Your task to perform on an android device: Clear all items from cart on bestbuy. Search for "logitech g pro" on bestbuy, select the first entry, and add it to the cart. Image 0: 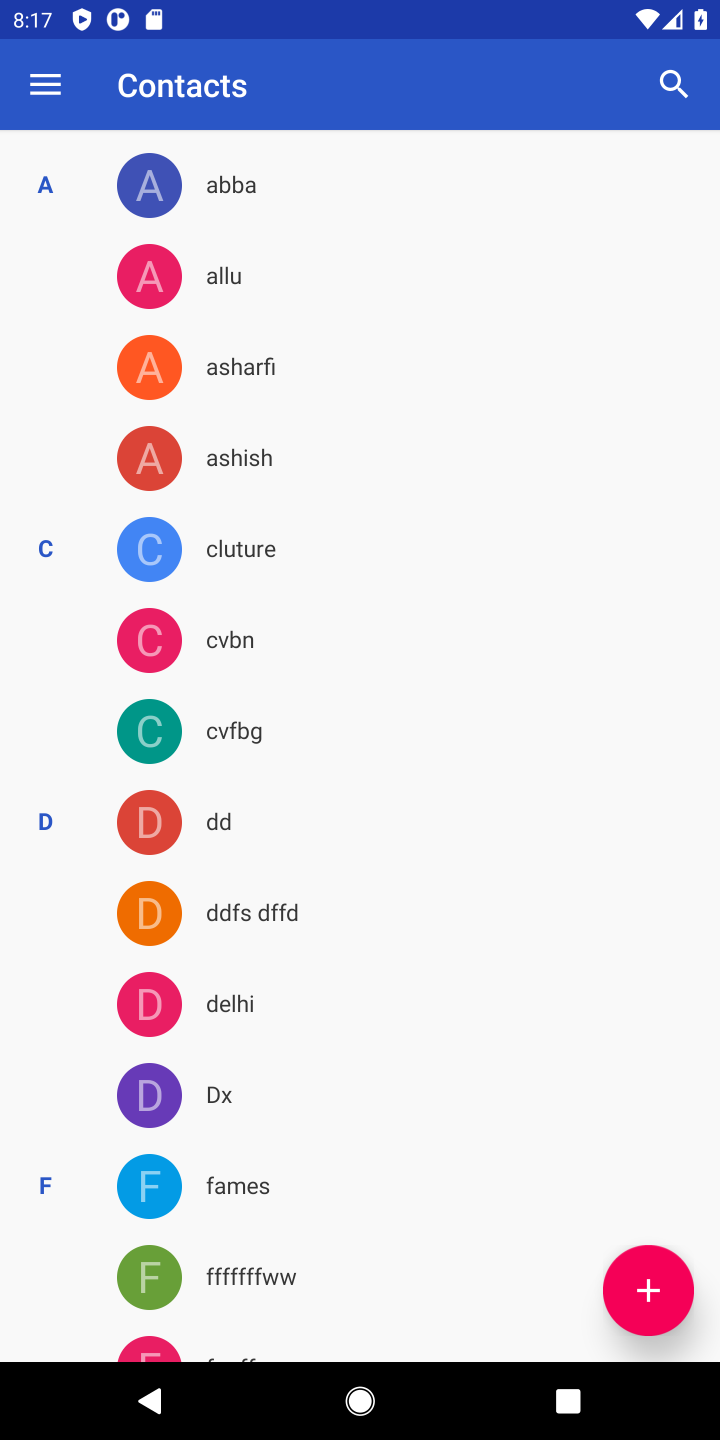
Step 0: press home button
Your task to perform on an android device: Clear all items from cart on bestbuy. Search for "logitech g pro" on bestbuy, select the first entry, and add it to the cart. Image 1: 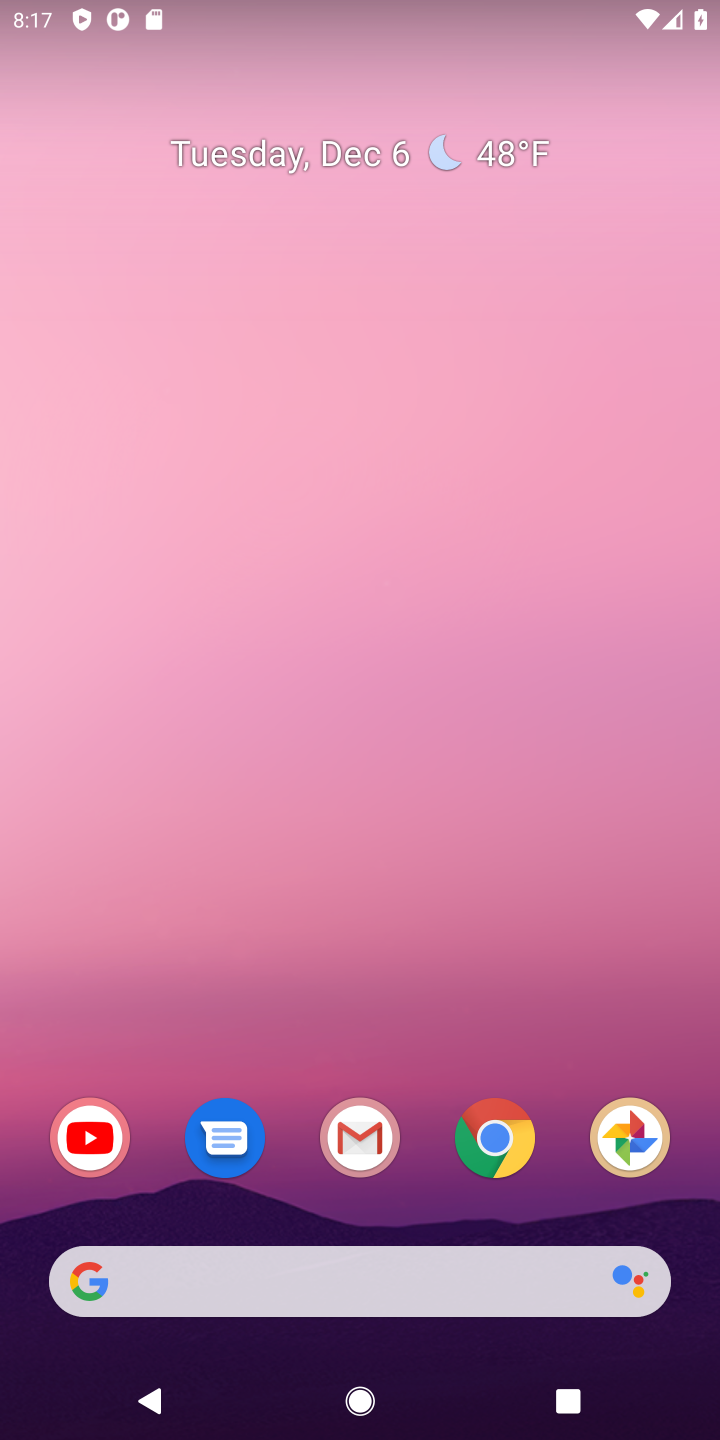
Step 1: click (496, 1154)
Your task to perform on an android device: Clear all items from cart on bestbuy. Search for "logitech g pro" on bestbuy, select the first entry, and add it to the cart. Image 2: 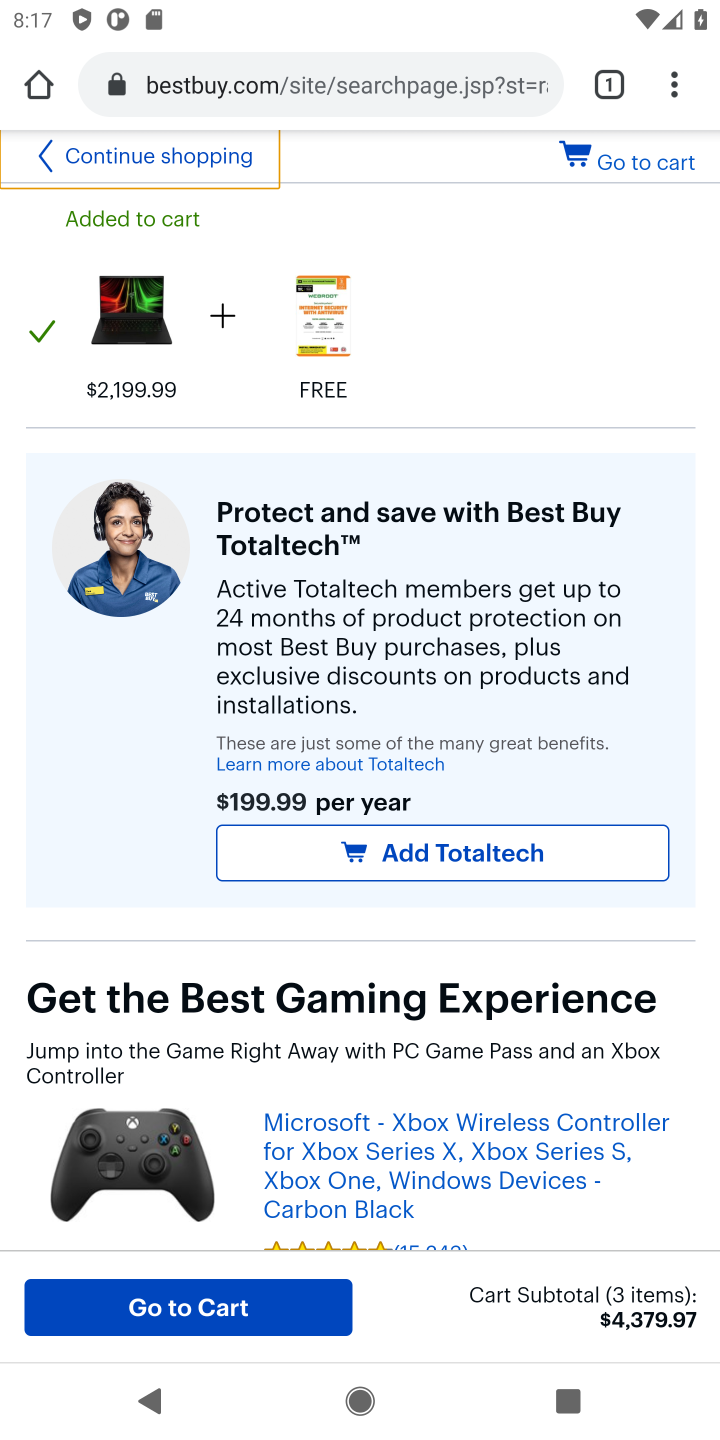
Step 2: drag from (568, 304) to (590, 441)
Your task to perform on an android device: Clear all items from cart on bestbuy. Search for "logitech g pro" on bestbuy, select the first entry, and add it to the cart. Image 3: 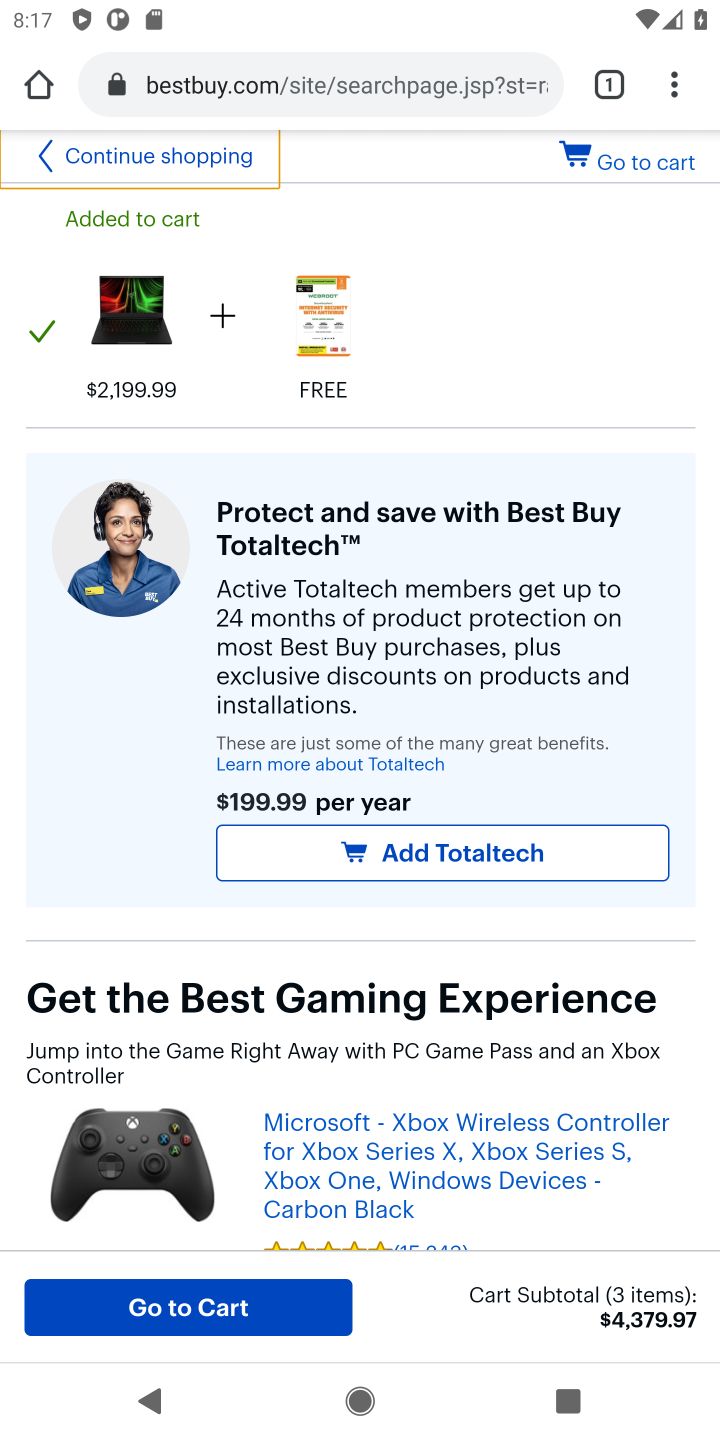
Step 3: click (650, 161)
Your task to perform on an android device: Clear all items from cart on bestbuy. Search for "logitech g pro" on bestbuy, select the first entry, and add it to the cart. Image 4: 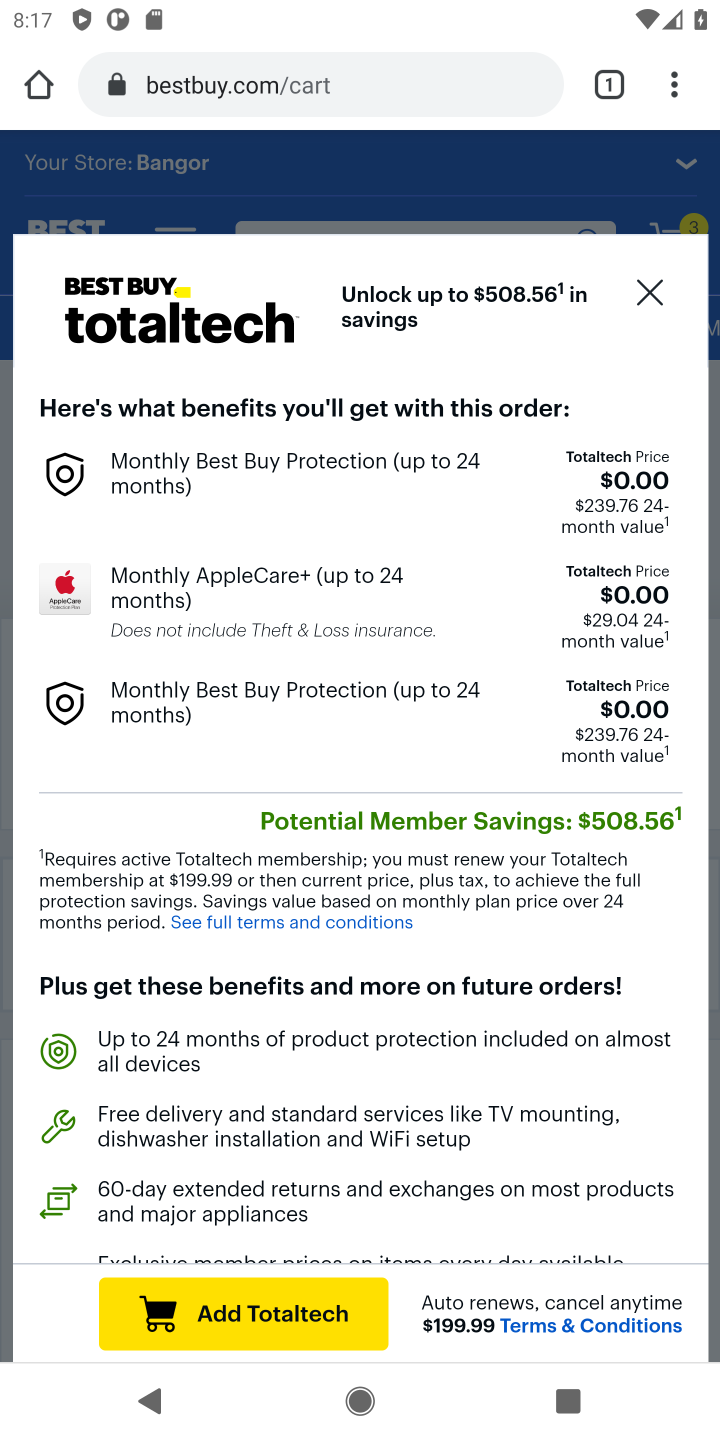
Step 4: click (659, 298)
Your task to perform on an android device: Clear all items from cart on bestbuy. Search for "logitech g pro" on bestbuy, select the first entry, and add it to the cart. Image 5: 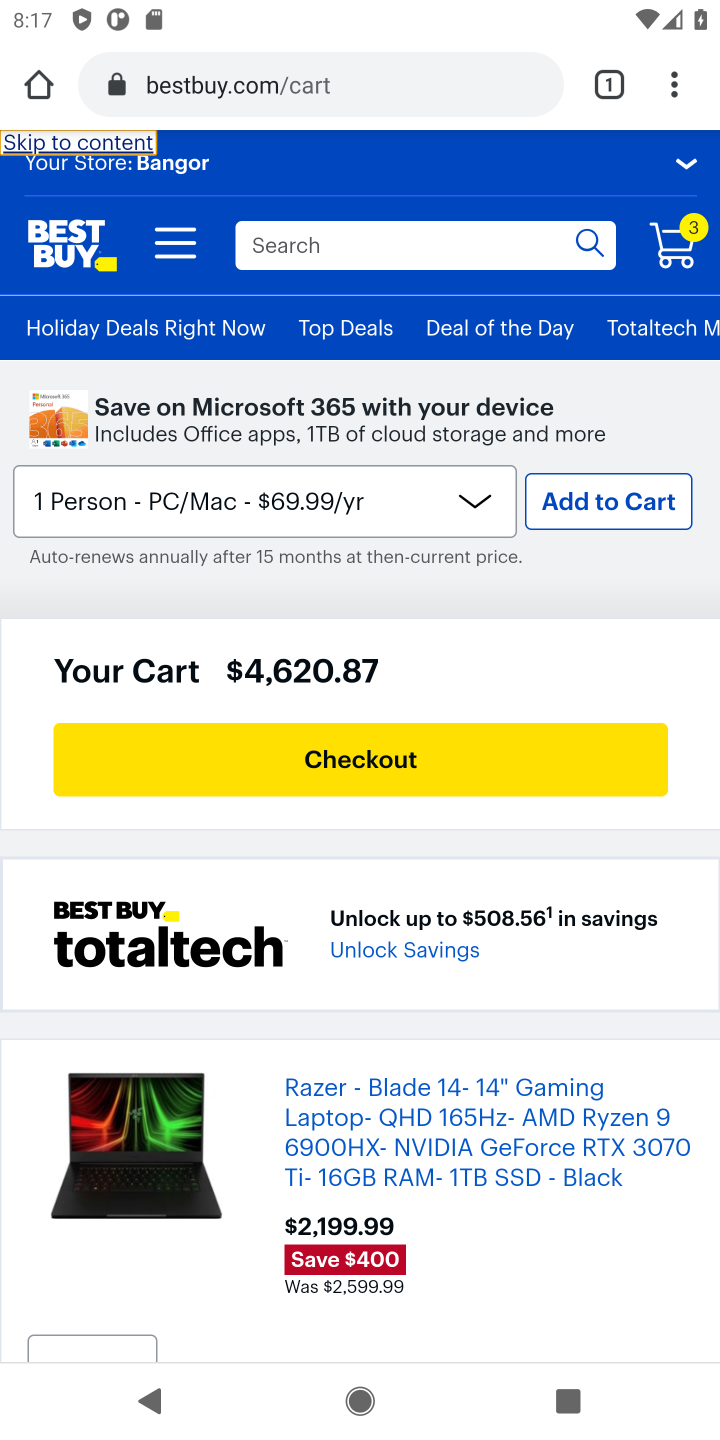
Step 5: drag from (596, 904) to (641, 171)
Your task to perform on an android device: Clear all items from cart on bestbuy. Search for "logitech g pro" on bestbuy, select the first entry, and add it to the cart. Image 6: 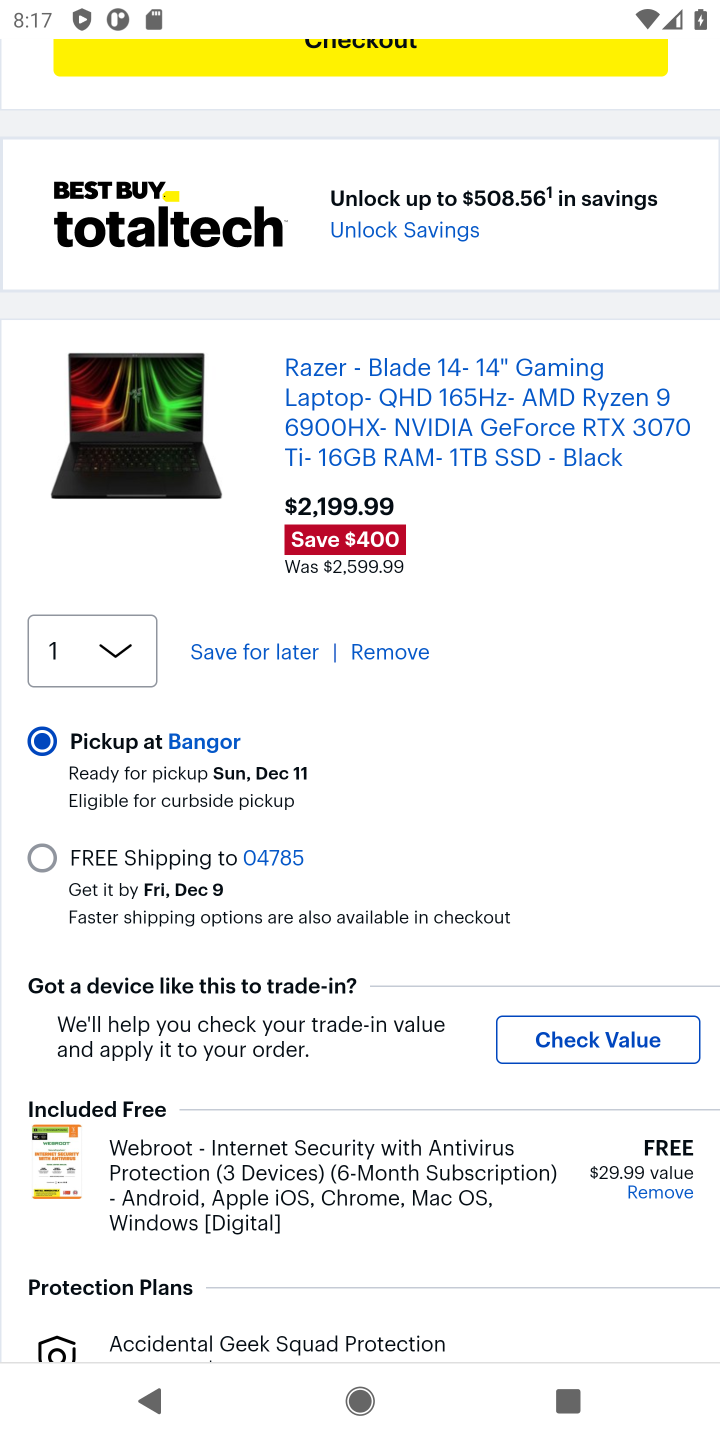
Step 6: click (384, 661)
Your task to perform on an android device: Clear all items from cart on bestbuy. Search for "logitech g pro" on bestbuy, select the first entry, and add it to the cart. Image 7: 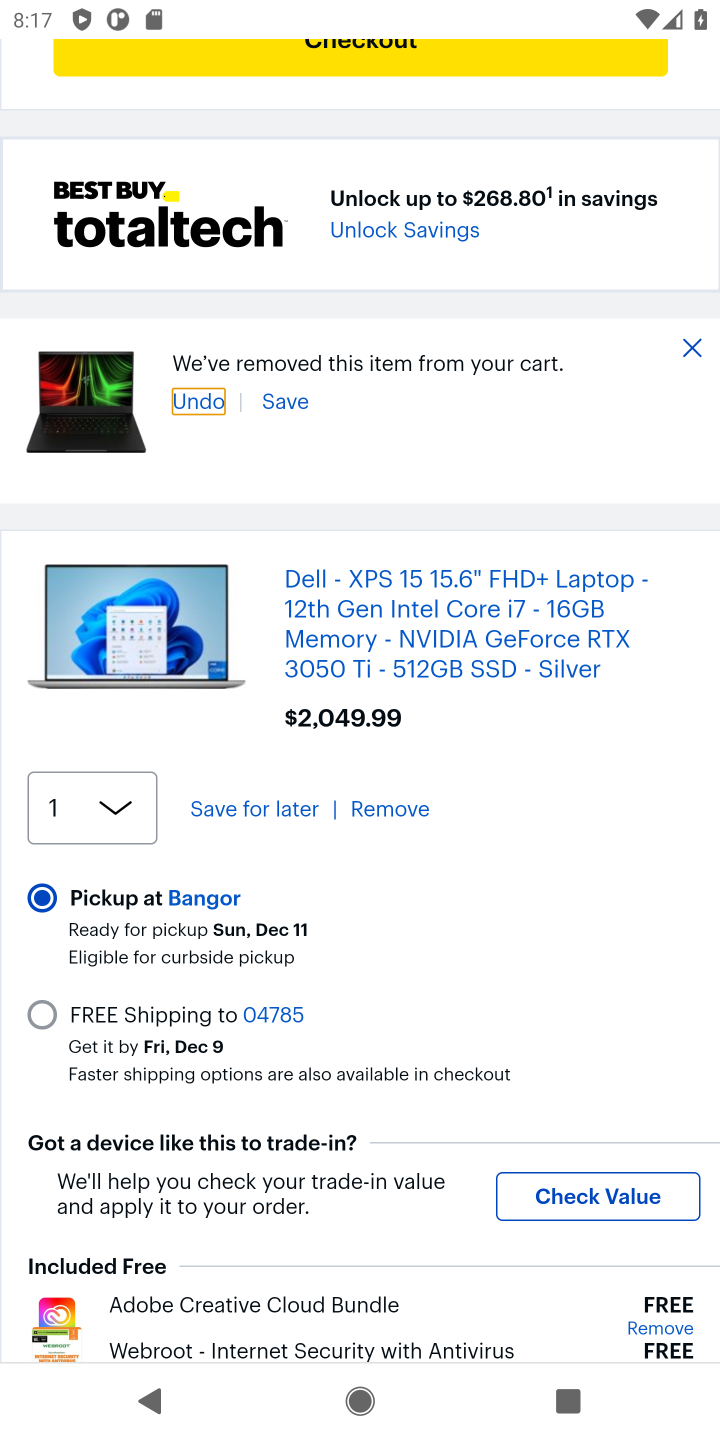
Step 7: click (401, 816)
Your task to perform on an android device: Clear all items from cart on bestbuy. Search for "logitech g pro" on bestbuy, select the first entry, and add it to the cart. Image 8: 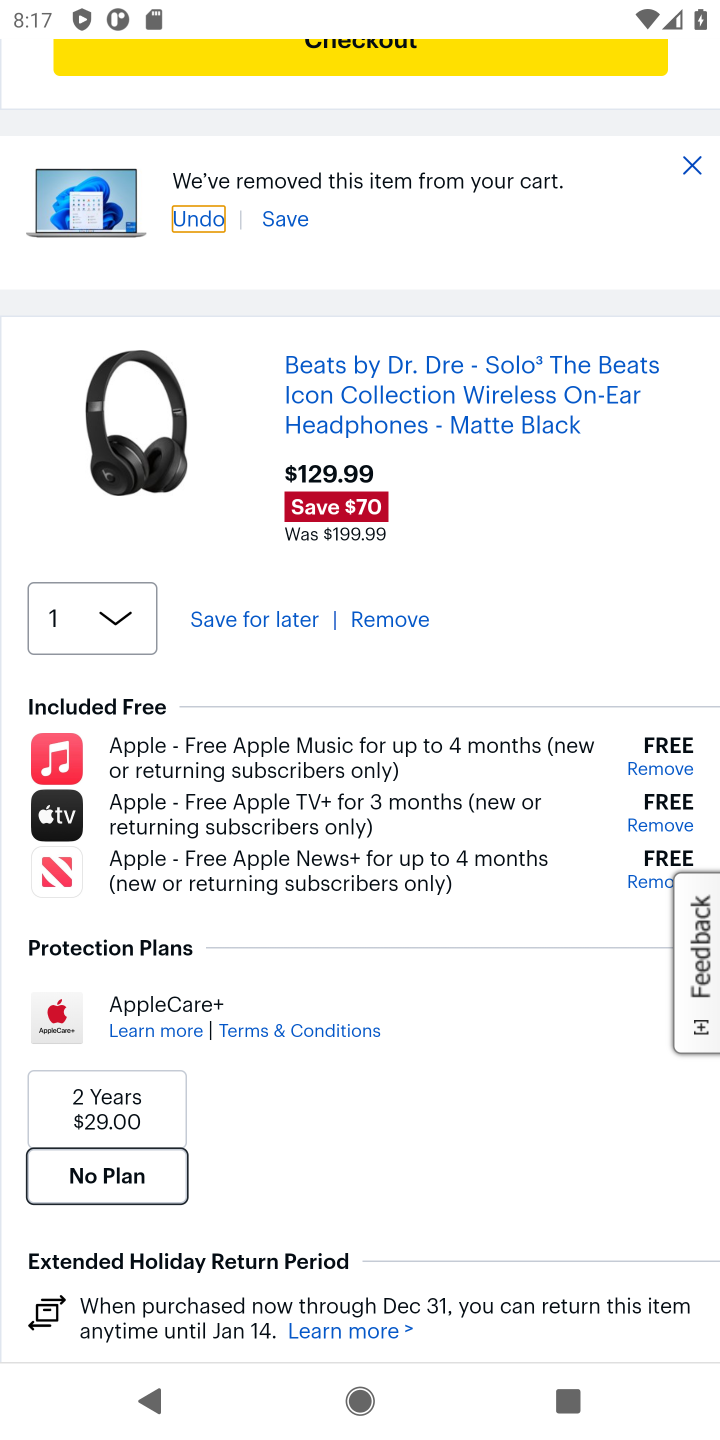
Step 8: click (371, 629)
Your task to perform on an android device: Clear all items from cart on bestbuy. Search for "logitech g pro" on bestbuy, select the first entry, and add it to the cart. Image 9: 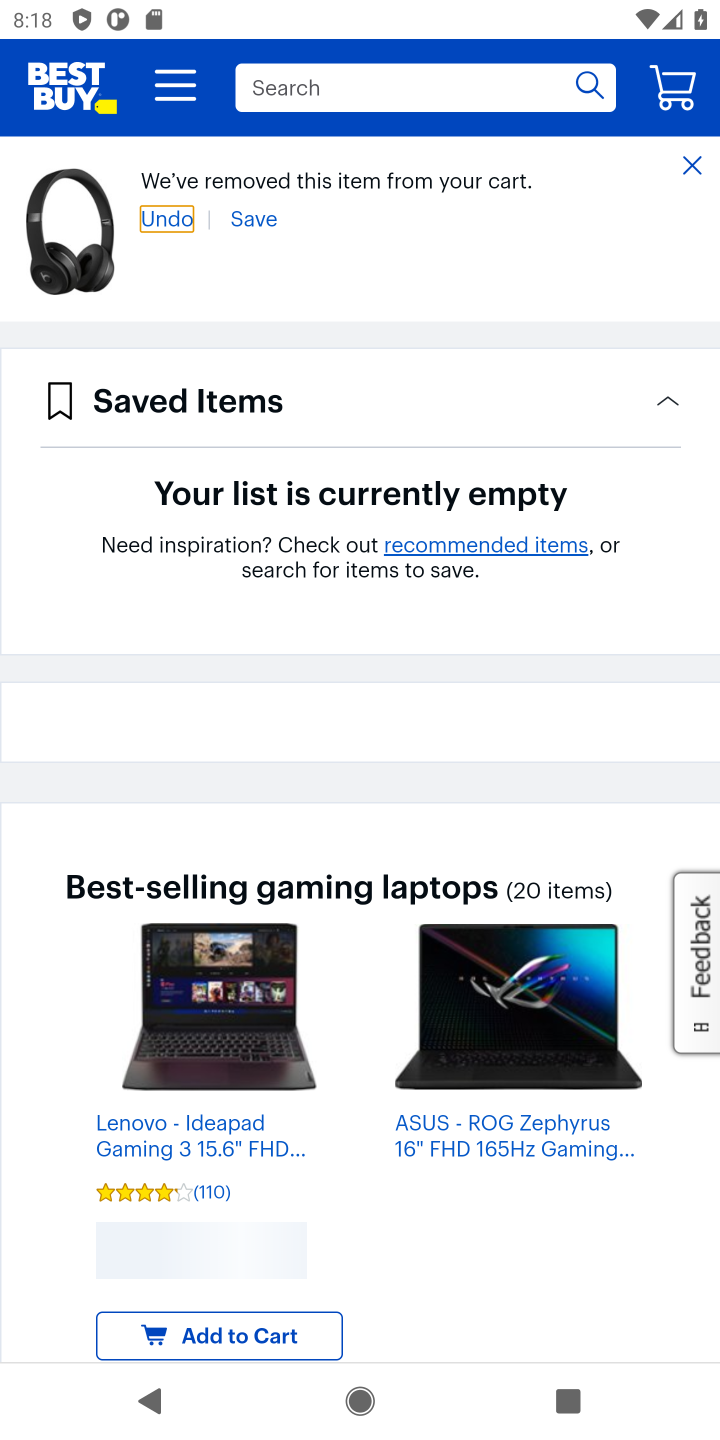
Step 9: click (350, 81)
Your task to perform on an android device: Clear all items from cart on bestbuy. Search for "logitech g pro" on bestbuy, select the first entry, and add it to the cart. Image 10: 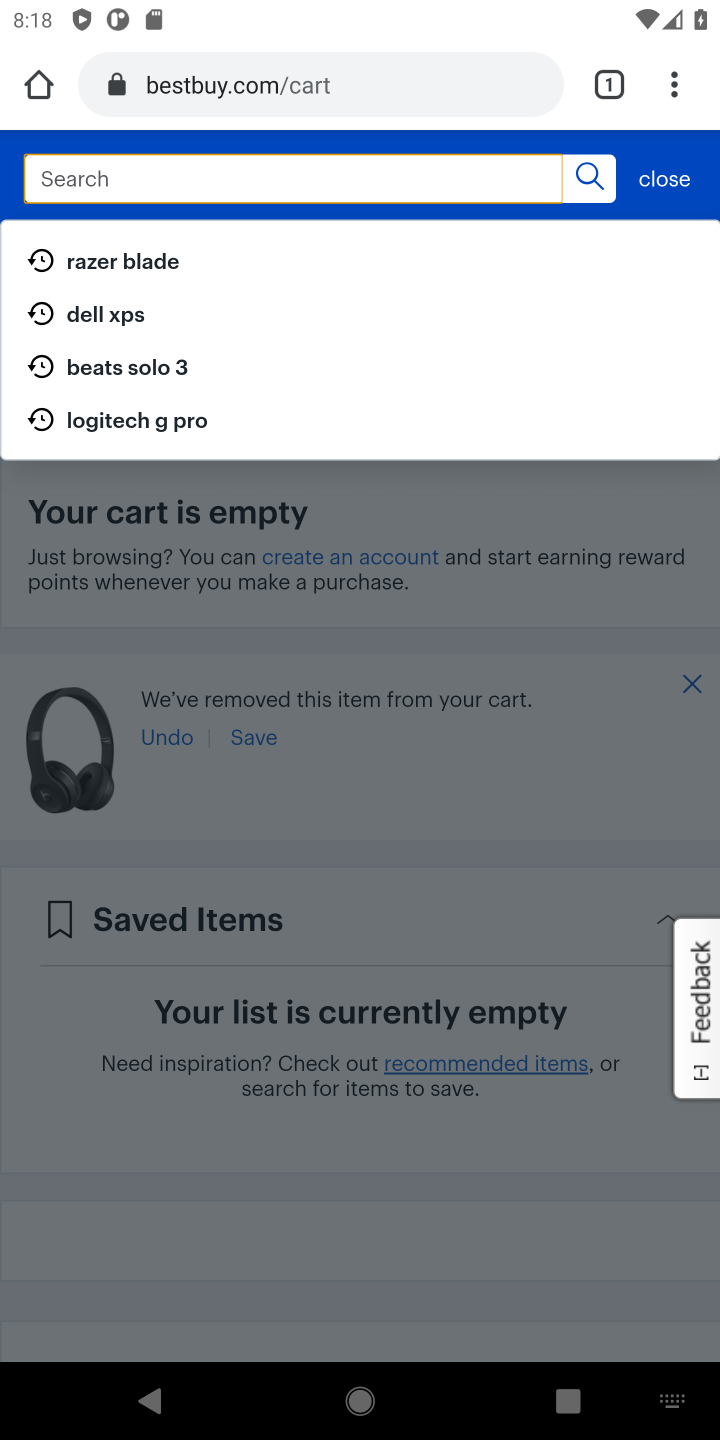
Step 10: type "logitech g pro"
Your task to perform on an android device: Clear all items from cart on bestbuy. Search for "logitech g pro" on bestbuy, select the first entry, and add it to the cart. Image 11: 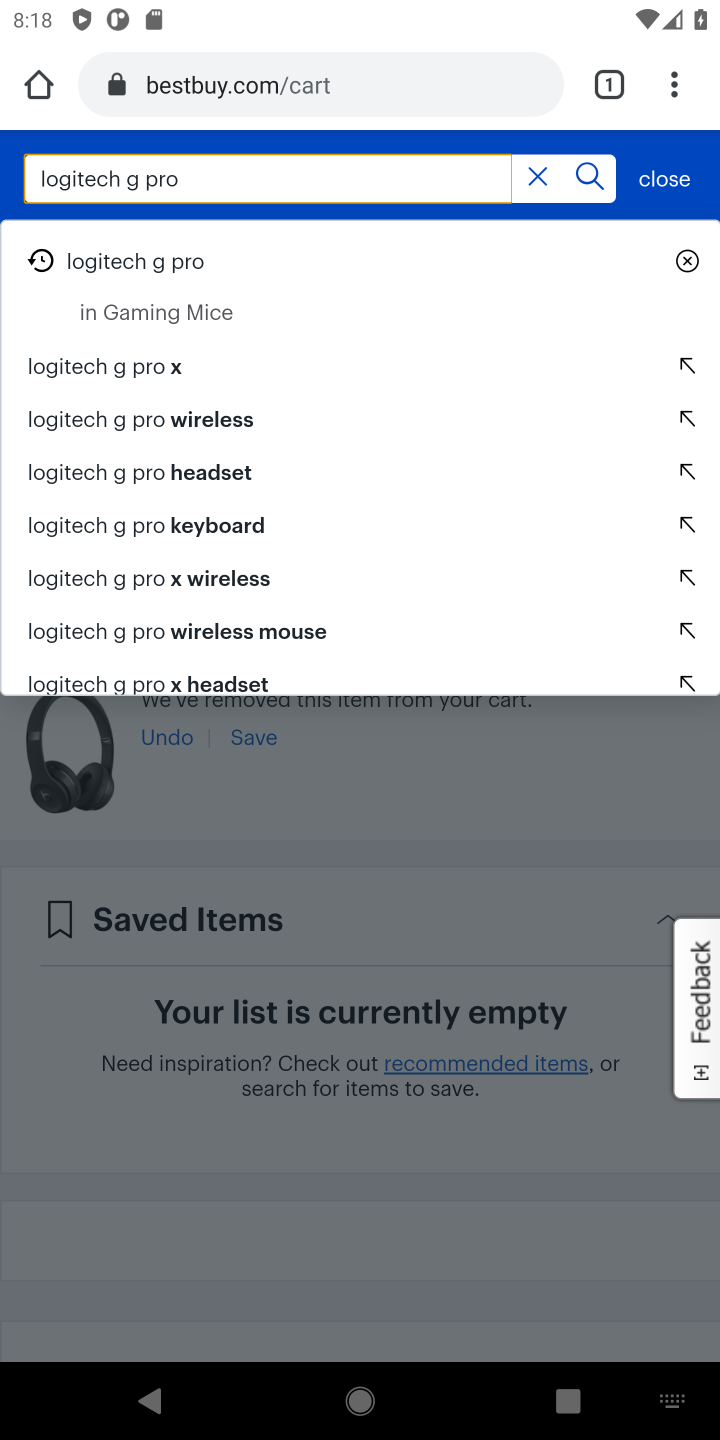
Step 11: click (178, 268)
Your task to perform on an android device: Clear all items from cart on bestbuy. Search for "logitech g pro" on bestbuy, select the first entry, and add it to the cart. Image 12: 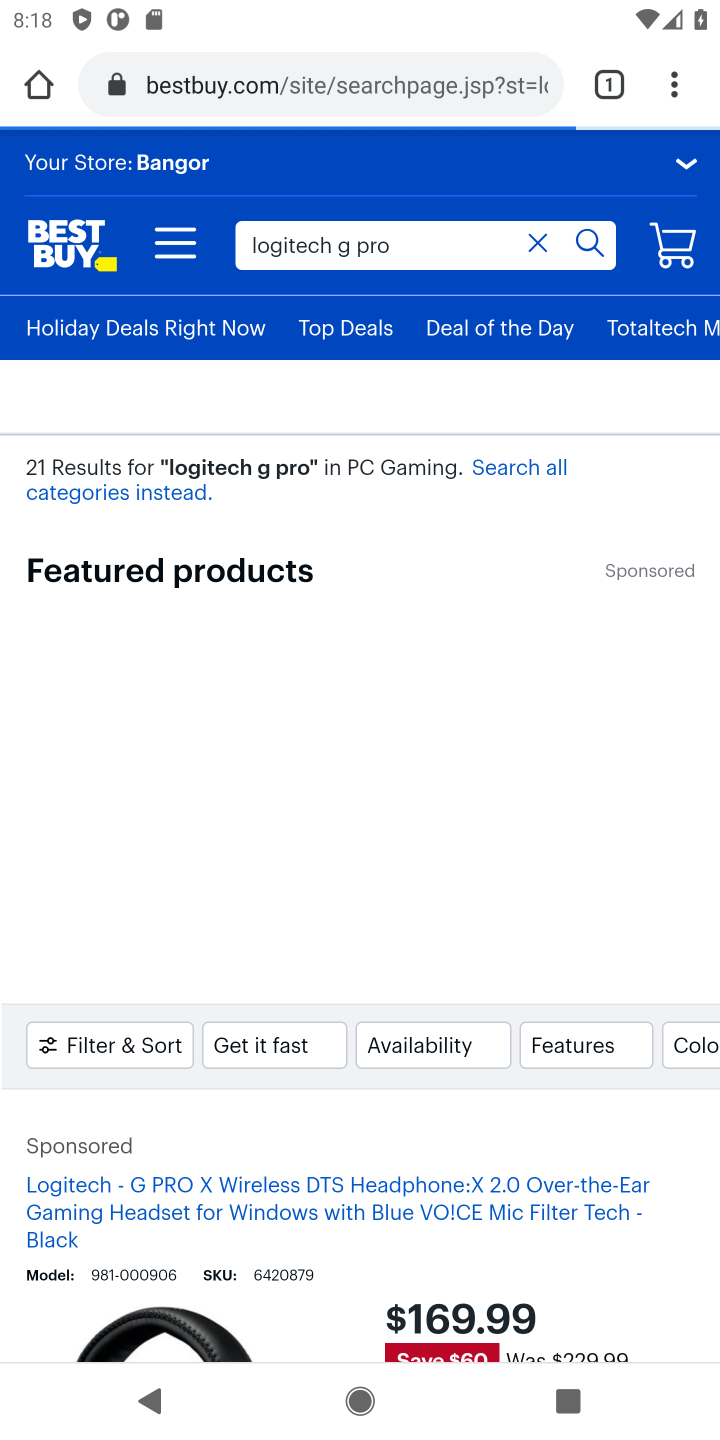
Step 12: drag from (333, 1062) to (340, 435)
Your task to perform on an android device: Clear all items from cart on bestbuy. Search for "logitech g pro" on bestbuy, select the first entry, and add it to the cart. Image 13: 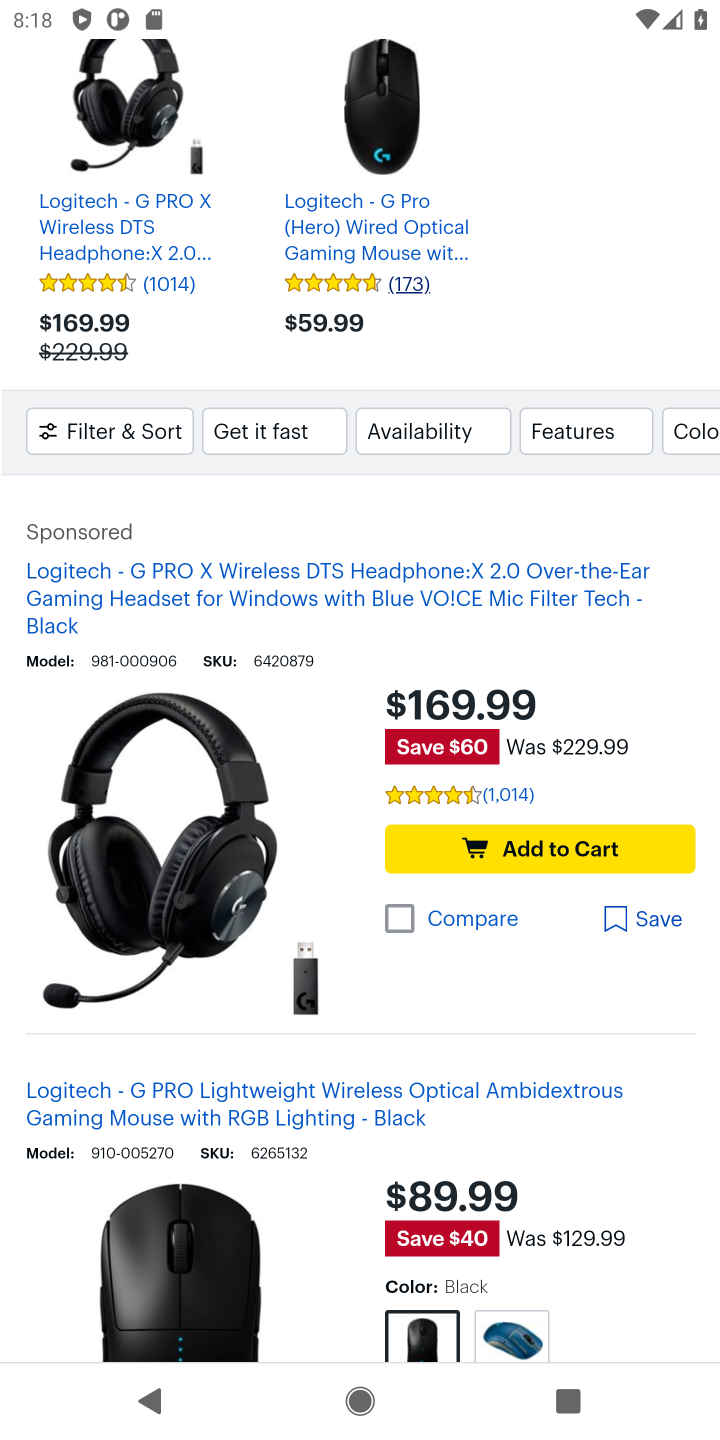
Step 13: click (485, 869)
Your task to perform on an android device: Clear all items from cart on bestbuy. Search for "logitech g pro" on bestbuy, select the first entry, and add it to the cart. Image 14: 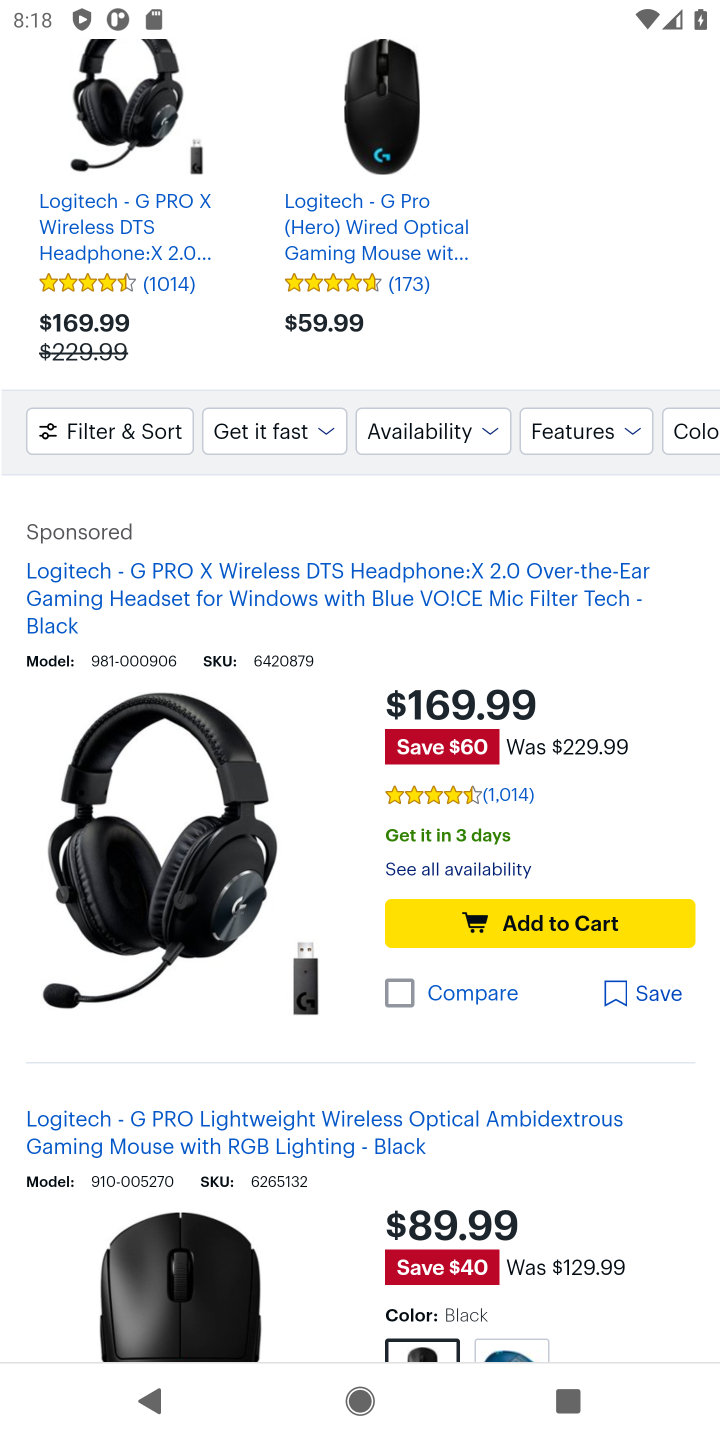
Step 14: click (491, 914)
Your task to perform on an android device: Clear all items from cart on bestbuy. Search for "logitech g pro" on bestbuy, select the first entry, and add it to the cart. Image 15: 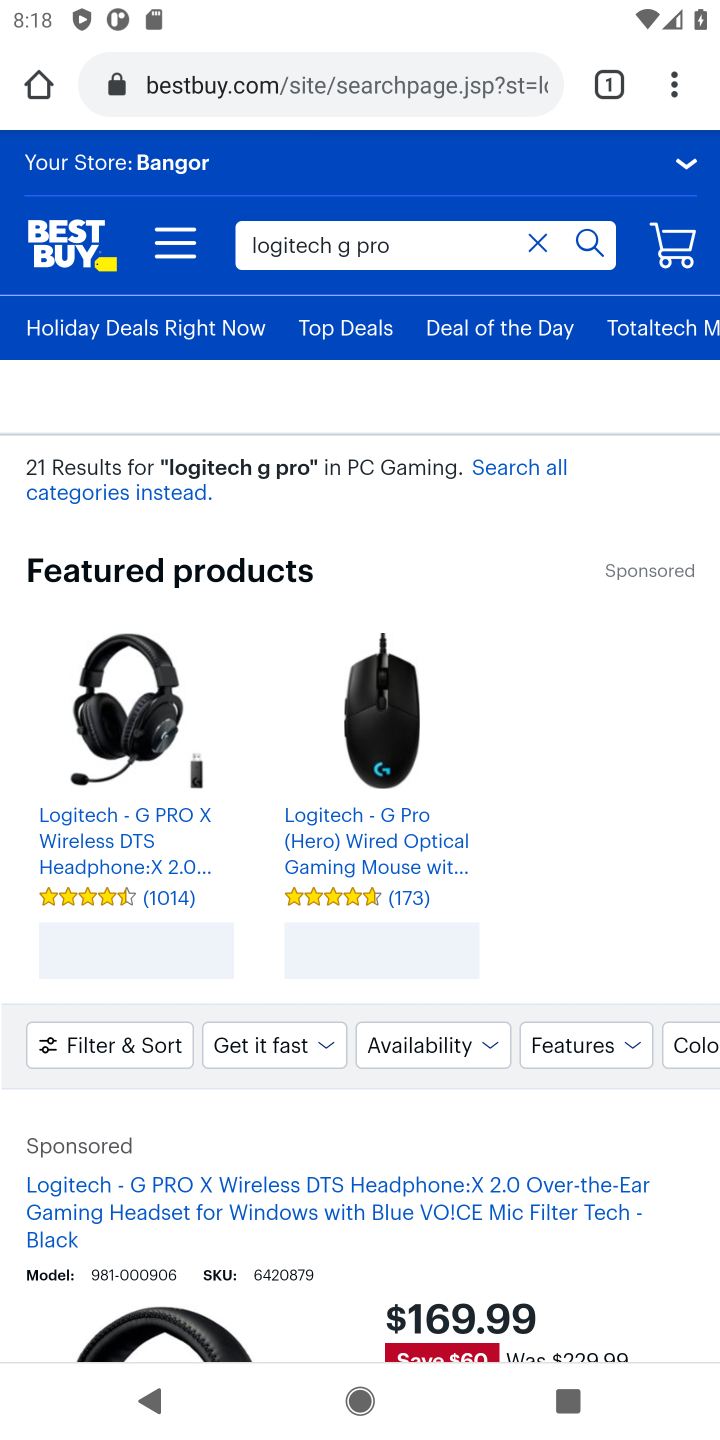
Step 15: drag from (496, 808) to (526, 260)
Your task to perform on an android device: Clear all items from cart on bestbuy. Search for "logitech g pro" on bestbuy, select the first entry, and add it to the cart. Image 16: 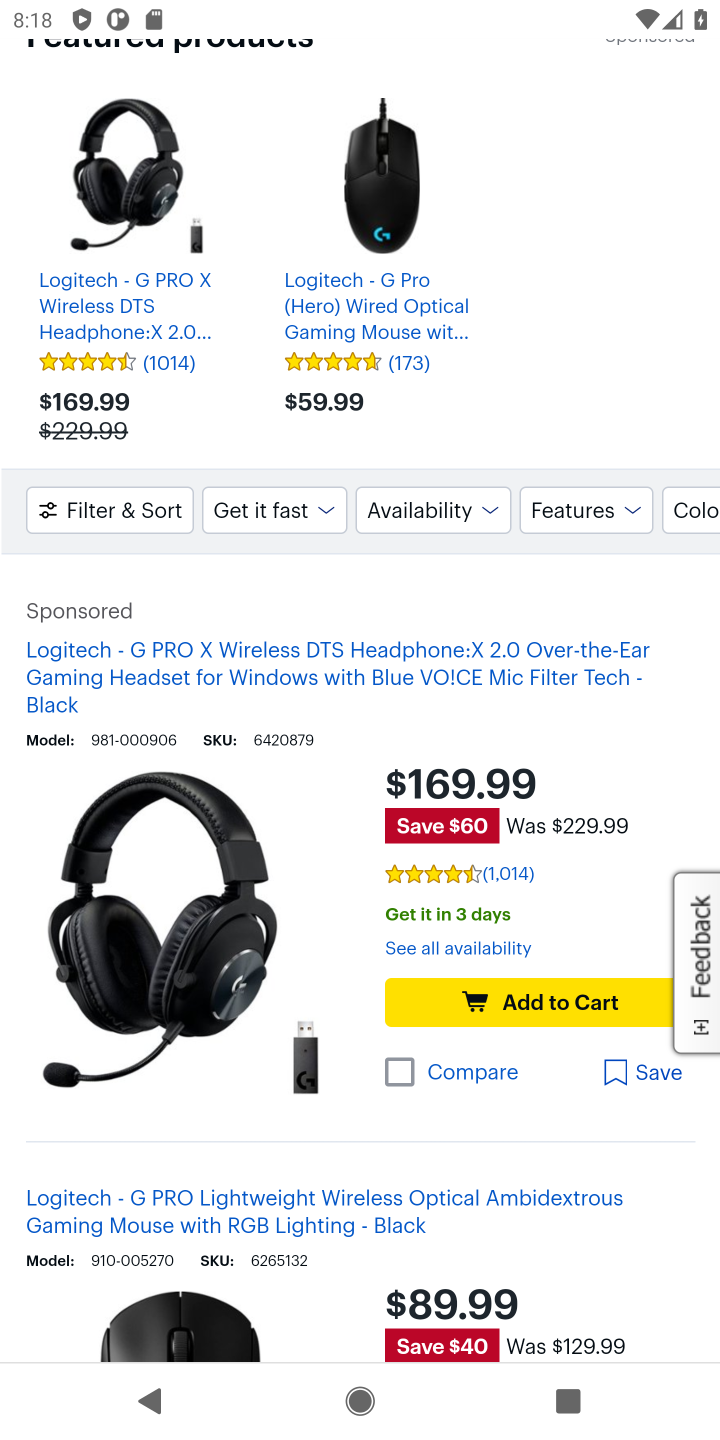
Step 16: click (504, 996)
Your task to perform on an android device: Clear all items from cart on bestbuy. Search for "logitech g pro" on bestbuy, select the first entry, and add it to the cart. Image 17: 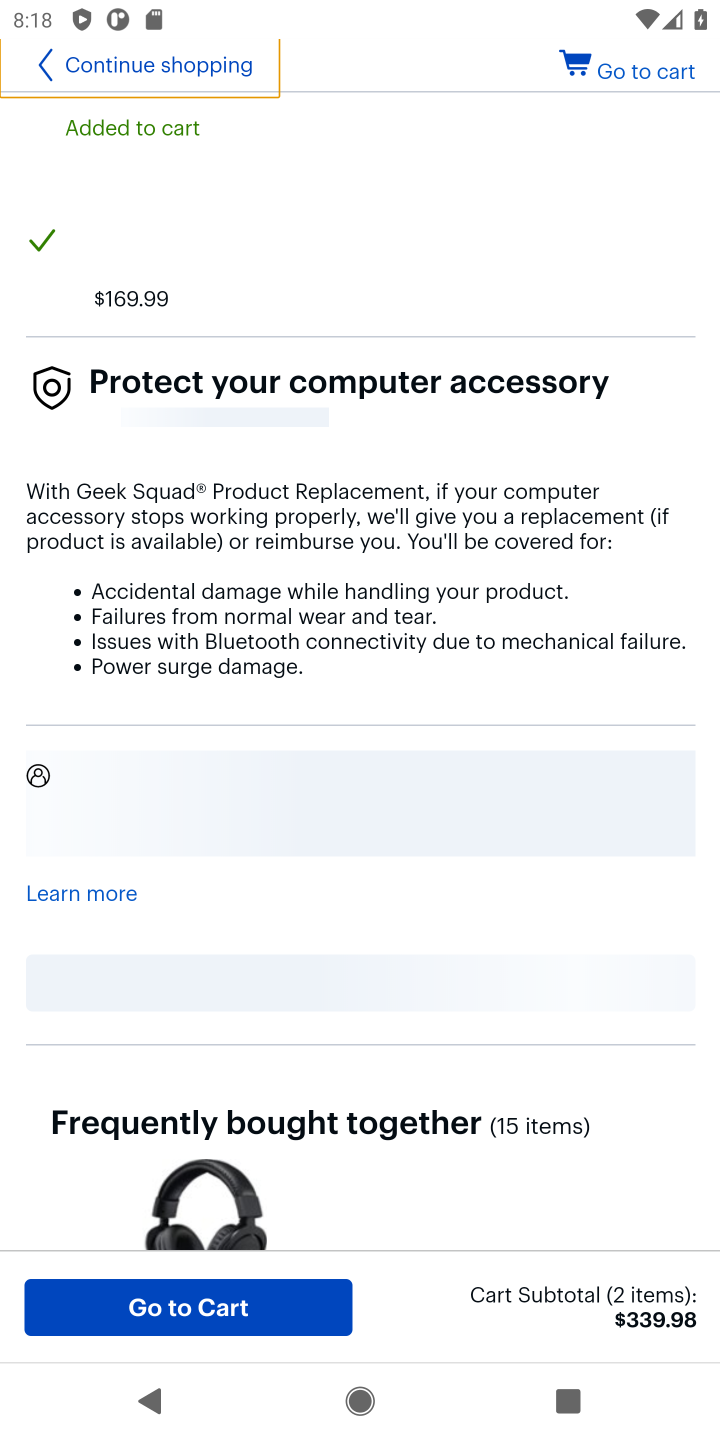
Step 17: task complete